Your task to perform on an android device: turn on javascript in the chrome app Image 0: 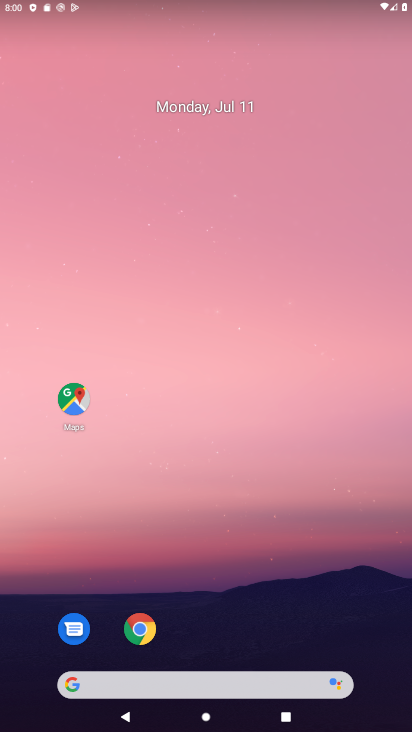
Step 0: click (128, 613)
Your task to perform on an android device: turn on javascript in the chrome app Image 1: 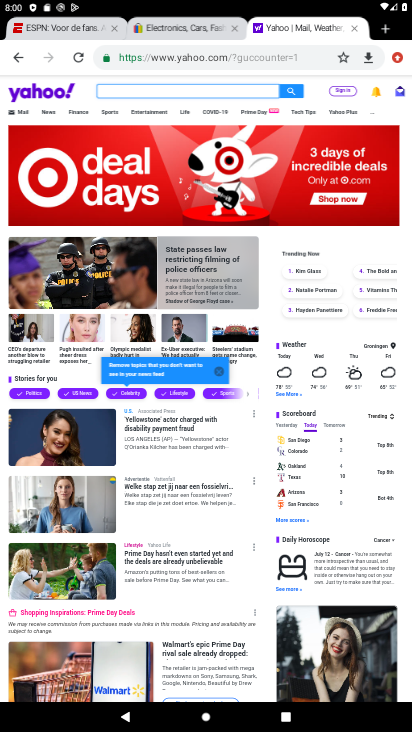
Step 1: click (398, 69)
Your task to perform on an android device: turn on javascript in the chrome app Image 2: 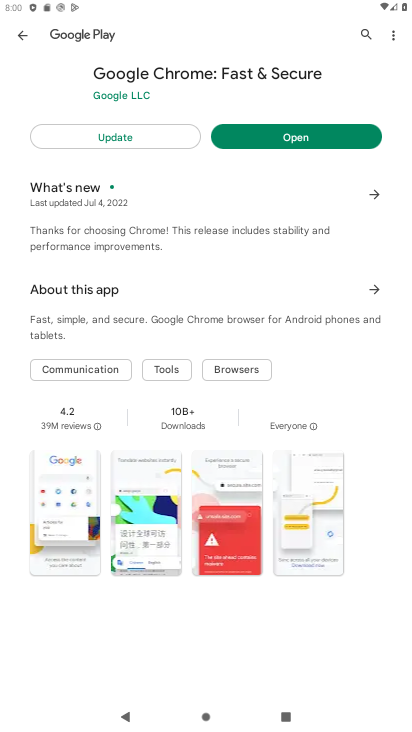
Step 2: press back button
Your task to perform on an android device: turn on javascript in the chrome app Image 3: 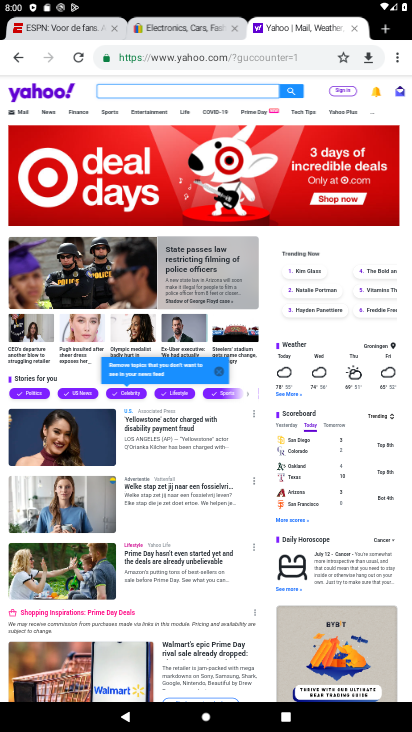
Step 3: drag from (391, 56) to (276, 418)
Your task to perform on an android device: turn on javascript in the chrome app Image 4: 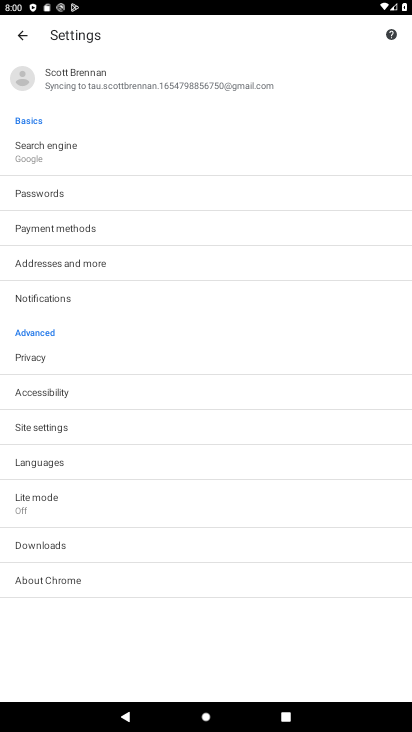
Step 4: click (12, 425)
Your task to perform on an android device: turn on javascript in the chrome app Image 5: 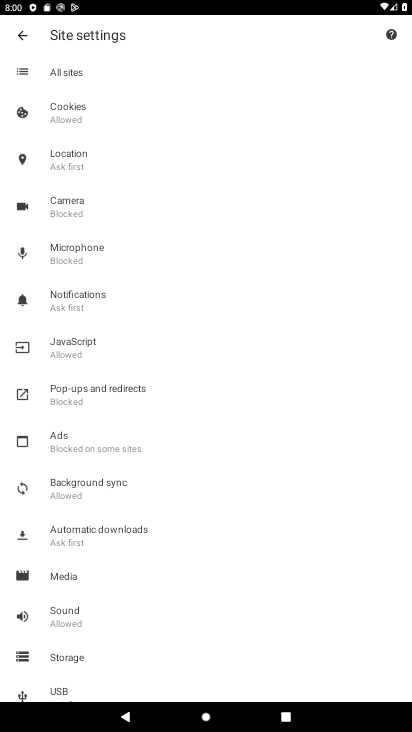
Step 5: click (55, 347)
Your task to perform on an android device: turn on javascript in the chrome app Image 6: 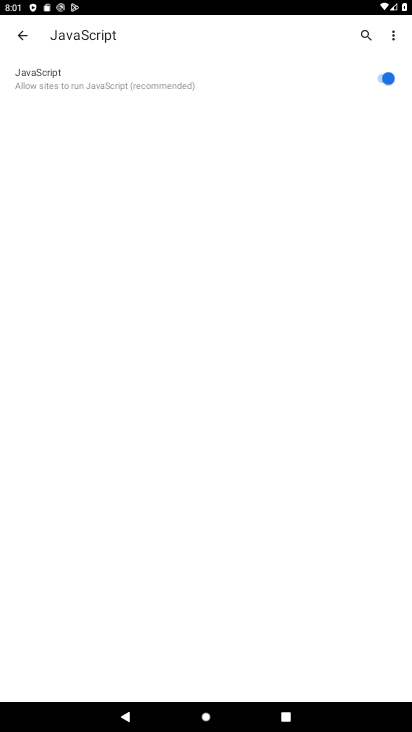
Step 6: click (379, 80)
Your task to perform on an android device: turn on javascript in the chrome app Image 7: 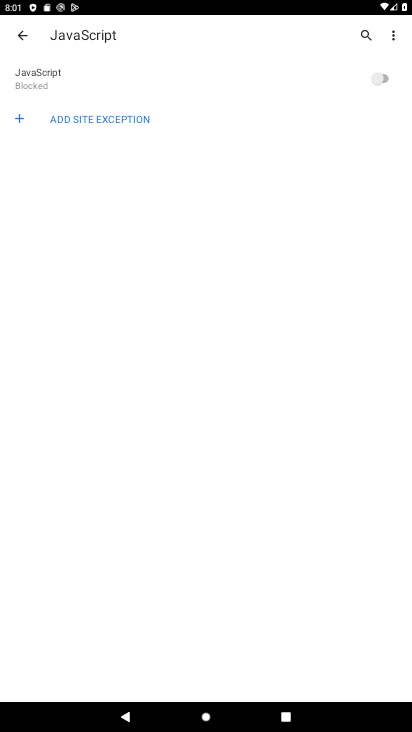
Step 7: task complete